Your task to perform on an android device: set the timer Image 0: 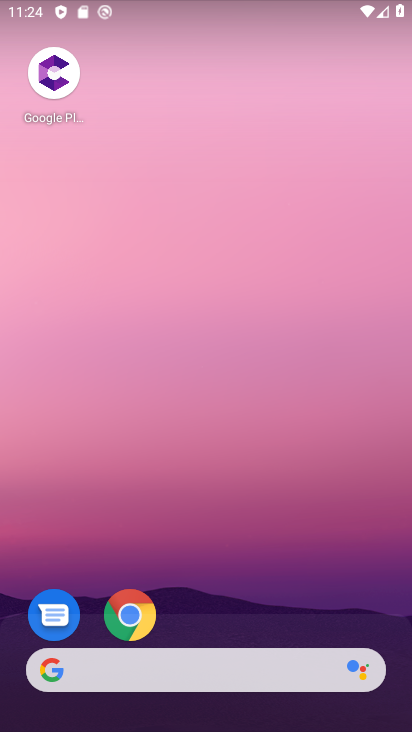
Step 0: drag from (218, 638) to (338, 120)
Your task to perform on an android device: set the timer Image 1: 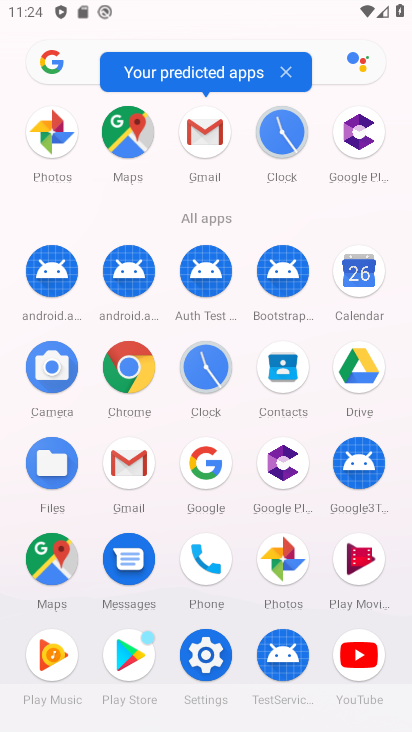
Step 1: click (223, 367)
Your task to perform on an android device: set the timer Image 2: 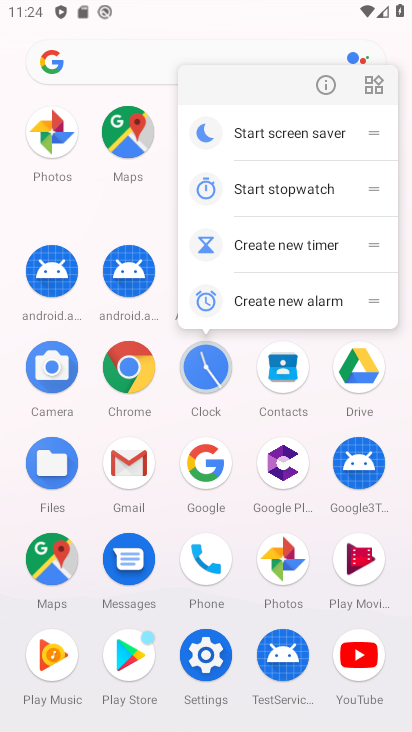
Step 2: click (200, 380)
Your task to perform on an android device: set the timer Image 3: 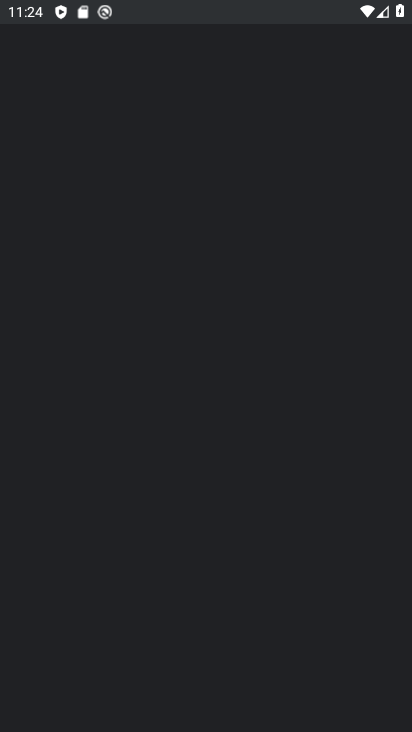
Step 3: click (205, 381)
Your task to perform on an android device: set the timer Image 4: 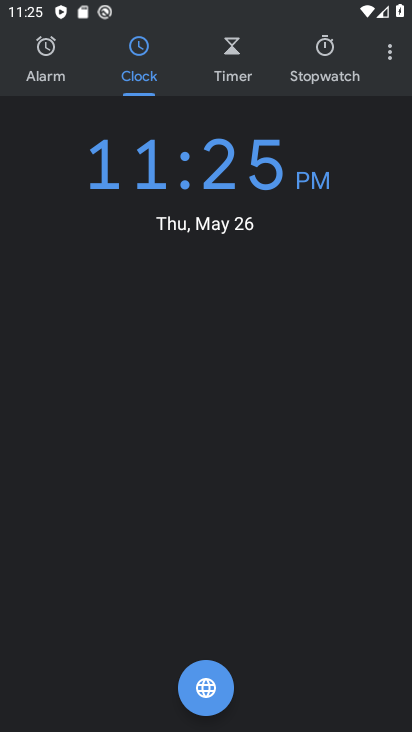
Step 4: click (247, 60)
Your task to perform on an android device: set the timer Image 5: 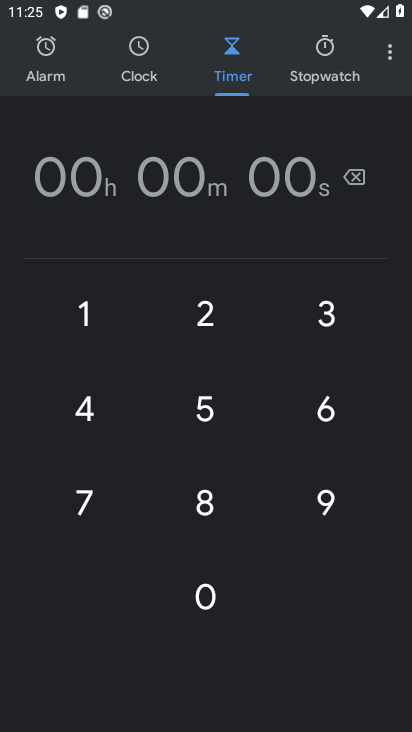
Step 5: click (228, 319)
Your task to perform on an android device: set the timer Image 6: 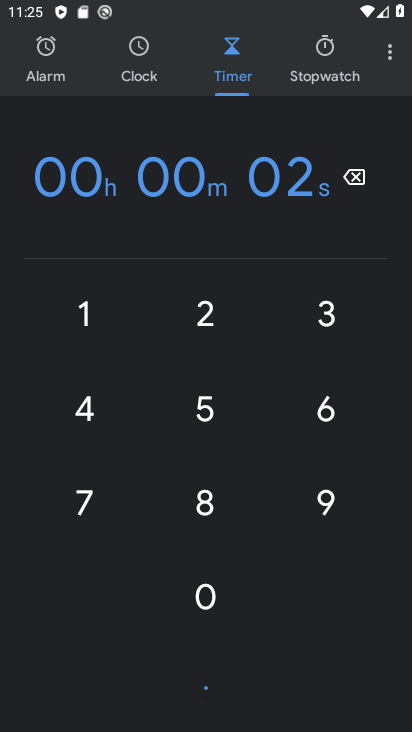
Step 6: click (207, 581)
Your task to perform on an android device: set the timer Image 7: 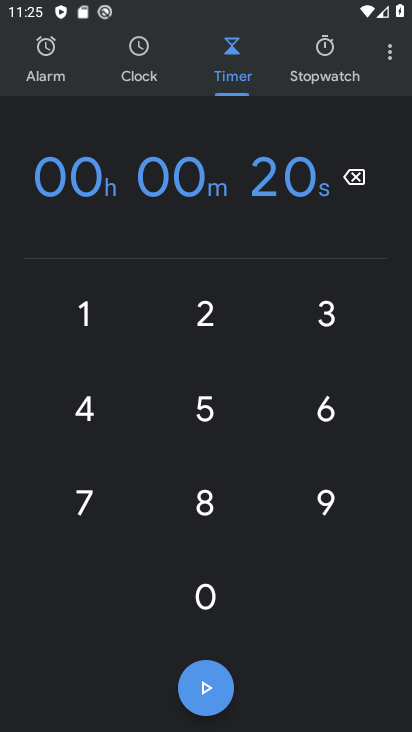
Step 7: click (221, 697)
Your task to perform on an android device: set the timer Image 8: 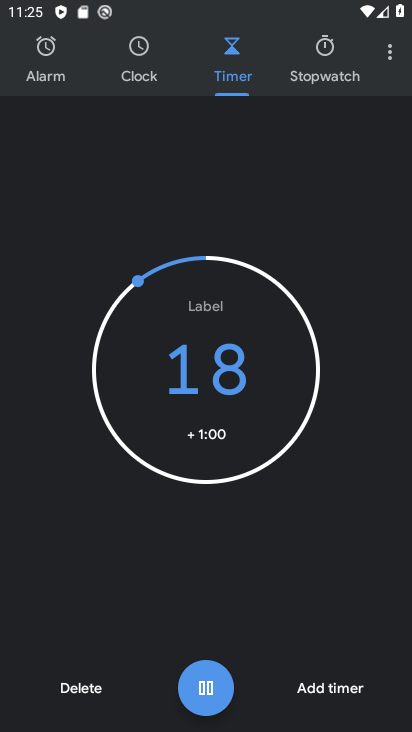
Step 8: task complete